Your task to perform on an android device: Clear the cart on amazon.com. Add duracell triple a to the cart on amazon.com, then select checkout. Image 0: 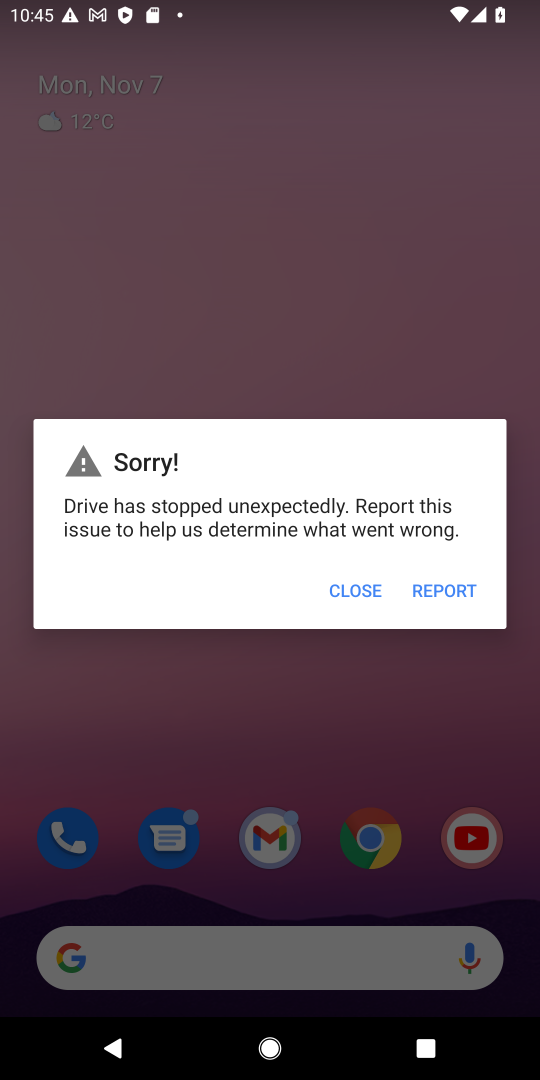
Step 0: click (350, 588)
Your task to perform on an android device: Clear the cart on amazon.com. Add duracell triple a to the cart on amazon.com, then select checkout. Image 1: 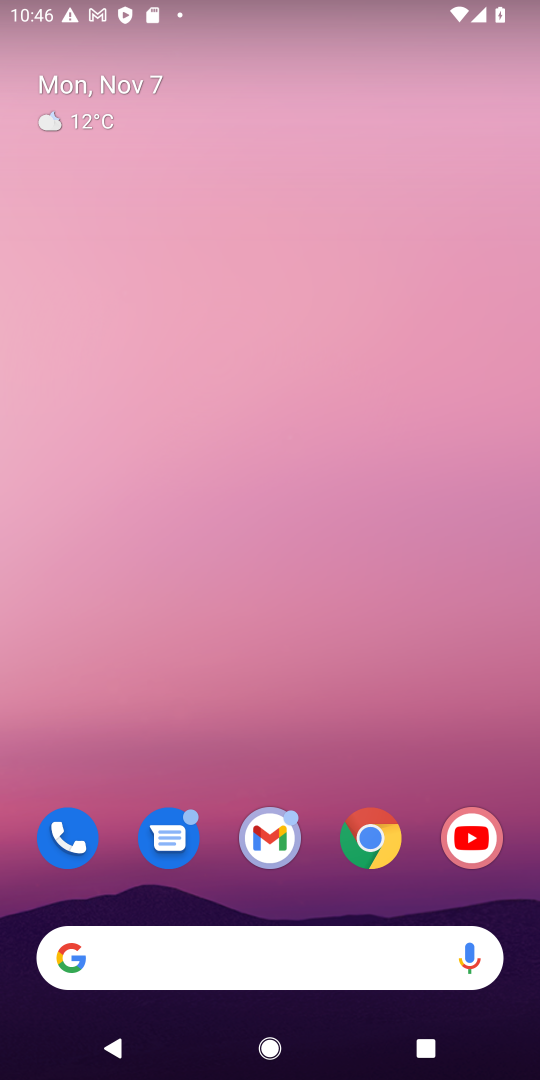
Step 1: drag from (306, 770) to (180, 15)
Your task to perform on an android device: Clear the cart on amazon.com. Add duracell triple a to the cart on amazon.com, then select checkout. Image 2: 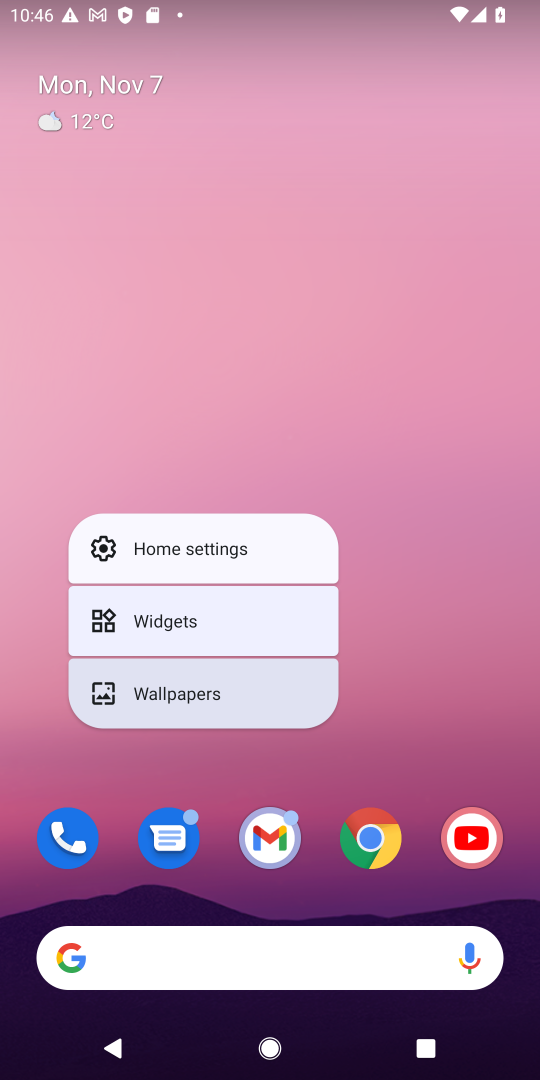
Step 2: click (371, 837)
Your task to perform on an android device: Clear the cart on amazon.com. Add duracell triple a to the cart on amazon.com, then select checkout. Image 3: 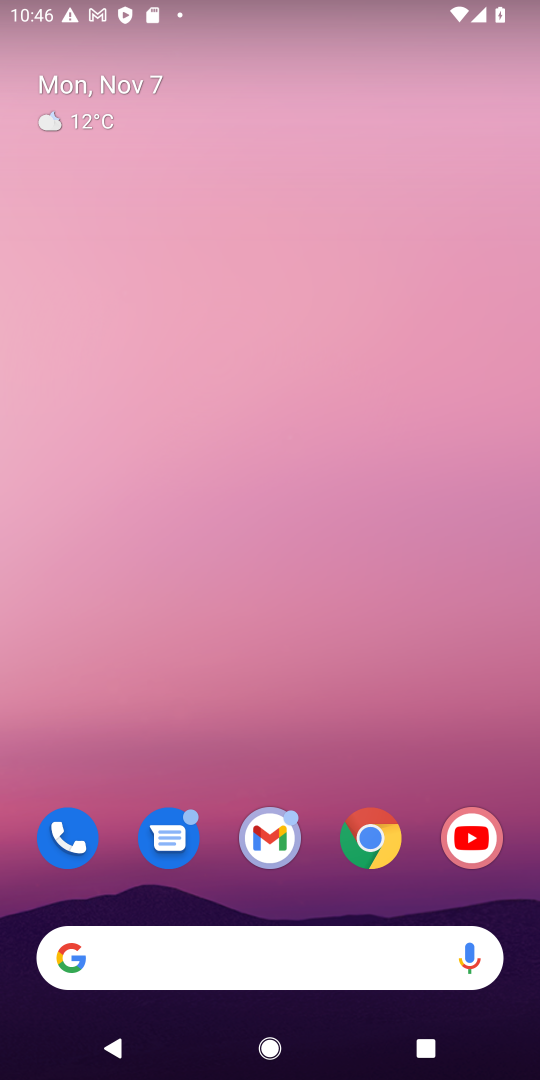
Step 3: click (370, 834)
Your task to perform on an android device: Clear the cart on amazon.com. Add duracell triple a to the cart on amazon.com, then select checkout. Image 4: 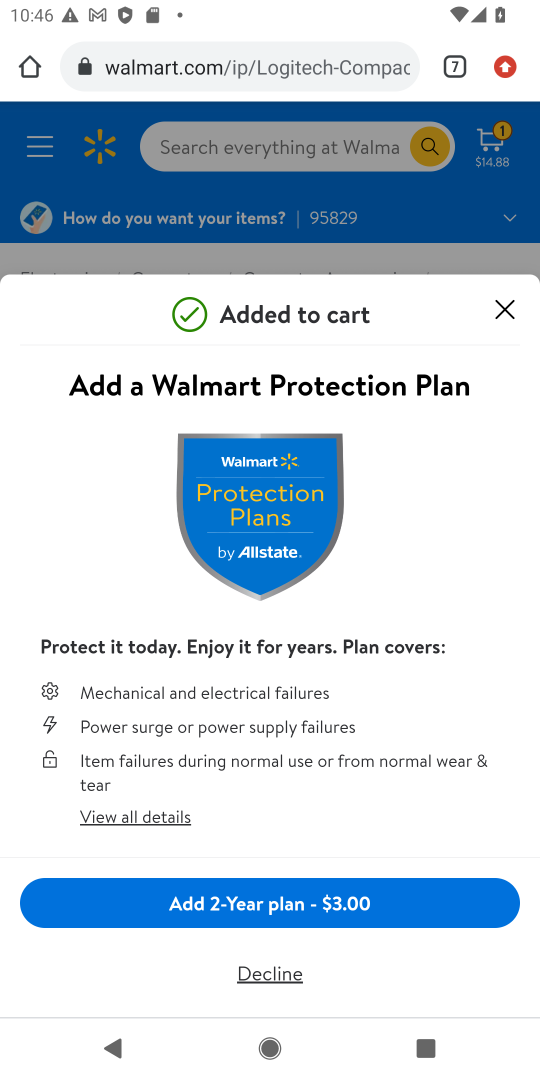
Step 4: click (456, 60)
Your task to perform on an android device: Clear the cart on amazon.com. Add duracell triple a to the cart on amazon.com, then select checkout. Image 5: 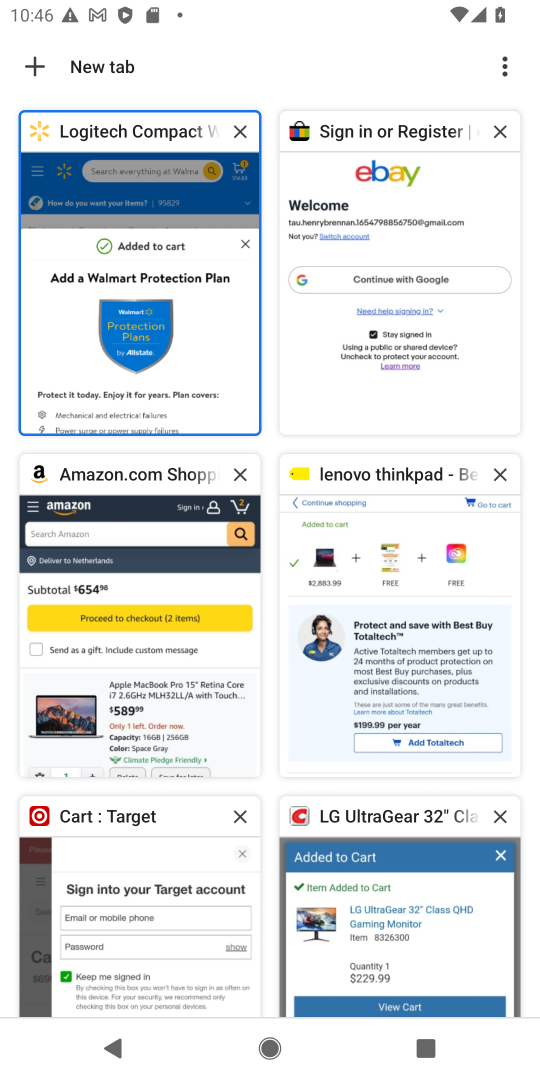
Step 5: click (190, 603)
Your task to perform on an android device: Clear the cart on amazon.com. Add duracell triple a to the cart on amazon.com, then select checkout. Image 6: 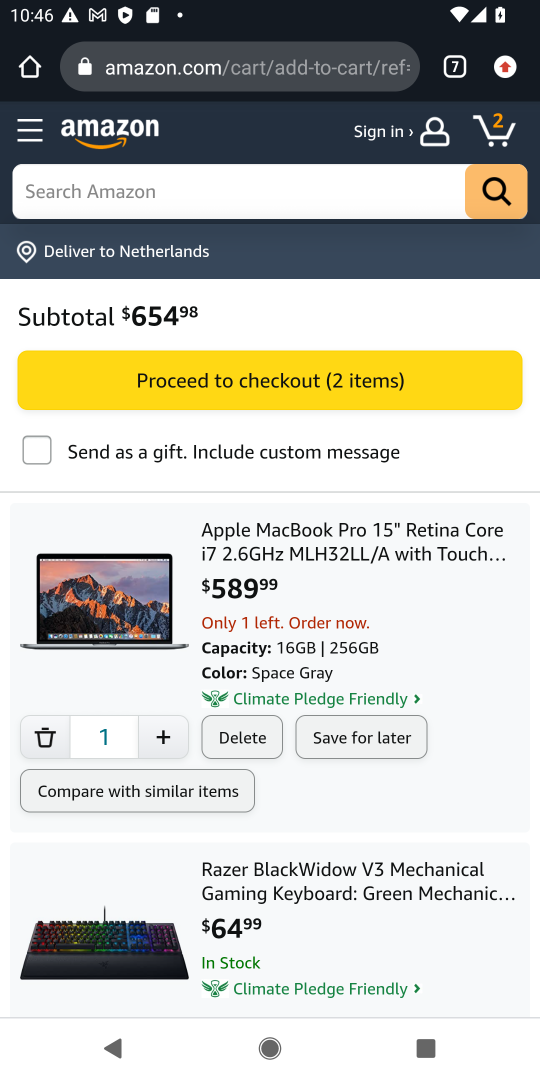
Step 6: click (221, 733)
Your task to perform on an android device: Clear the cart on amazon.com. Add duracell triple a to the cart on amazon.com, then select checkout. Image 7: 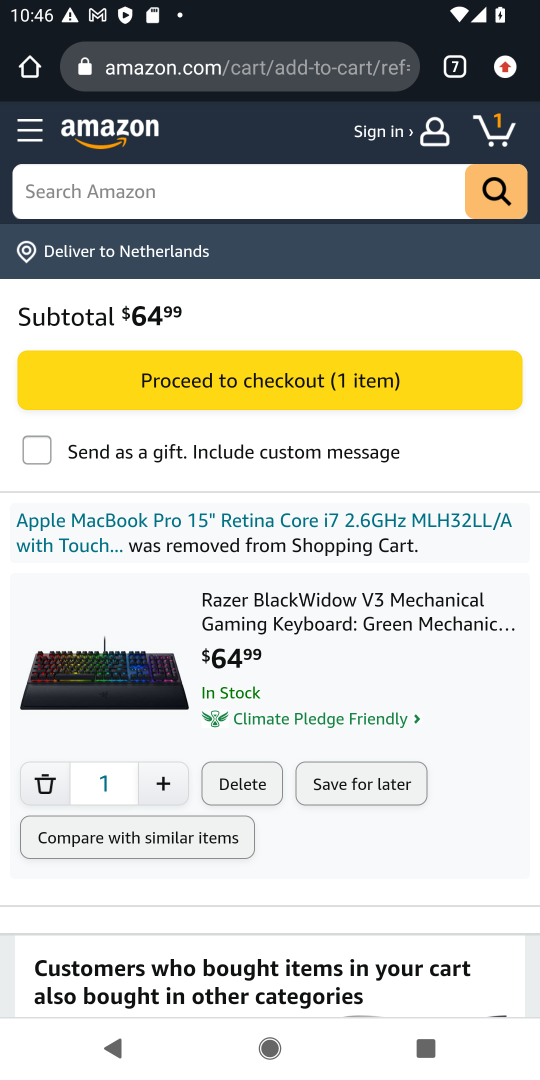
Step 7: click (239, 777)
Your task to perform on an android device: Clear the cart on amazon.com. Add duracell triple a to the cart on amazon.com, then select checkout. Image 8: 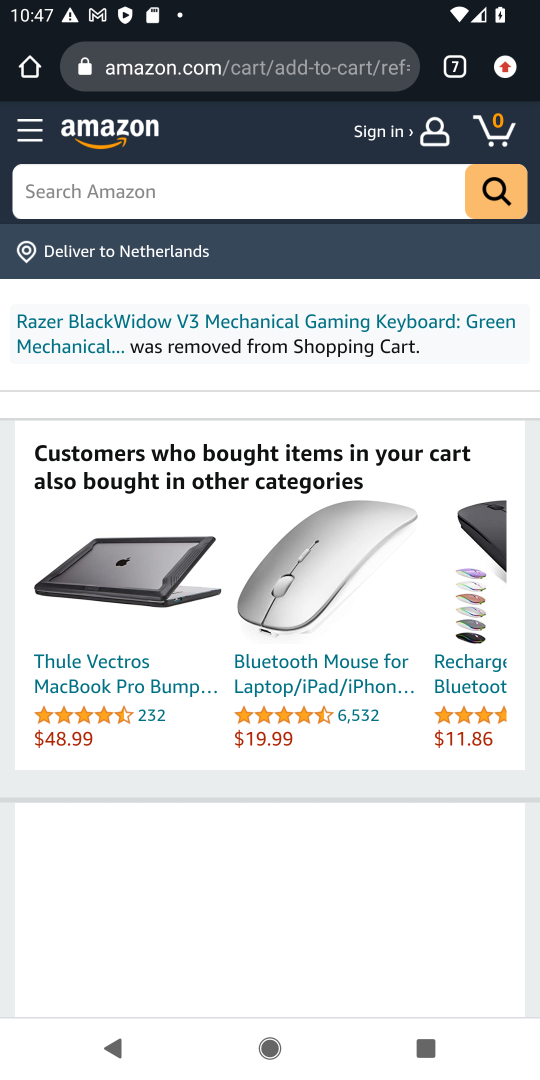
Step 8: type "duracell triple a"
Your task to perform on an android device: Clear the cart on amazon.com. Add duracell triple a to the cart on amazon.com, then select checkout. Image 9: 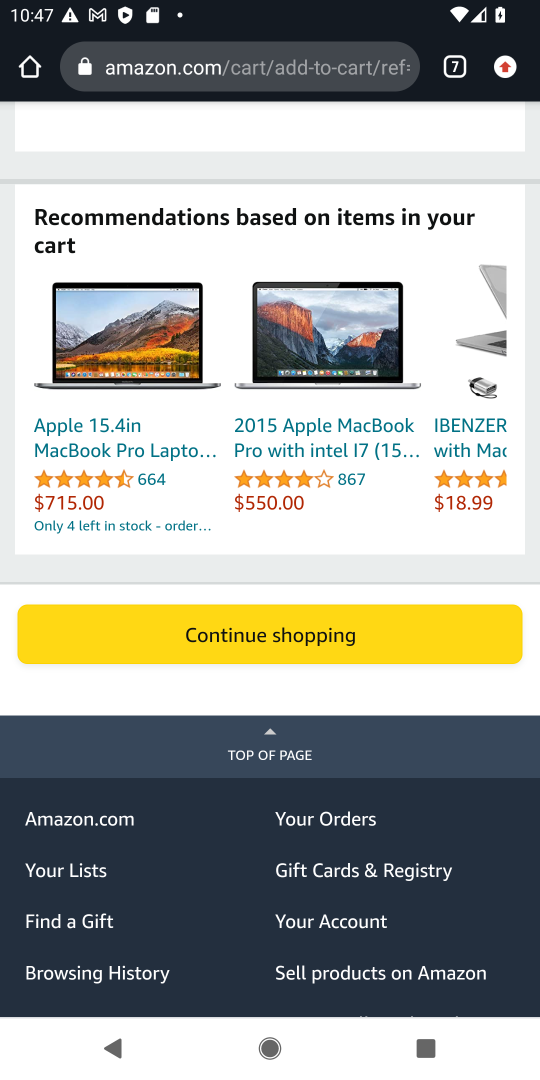
Step 9: click (280, 634)
Your task to perform on an android device: Clear the cart on amazon.com. Add duracell triple a to the cart on amazon.com, then select checkout. Image 10: 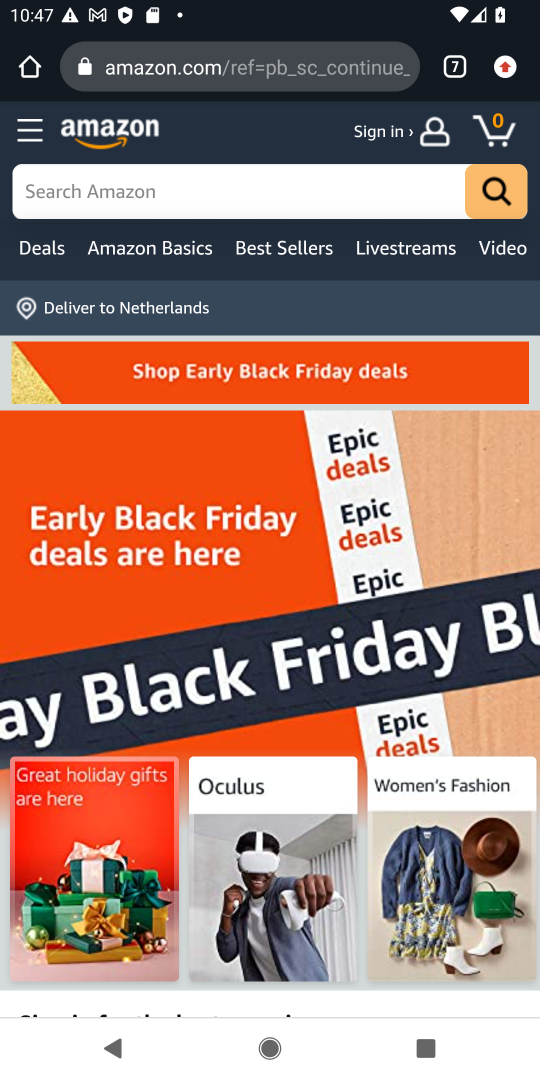
Step 10: click (144, 187)
Your task to perform on an android device: Clear the cart on amazon.com. Add duracell triple a to the cart on amazon.com, then select checkout. Image 11: 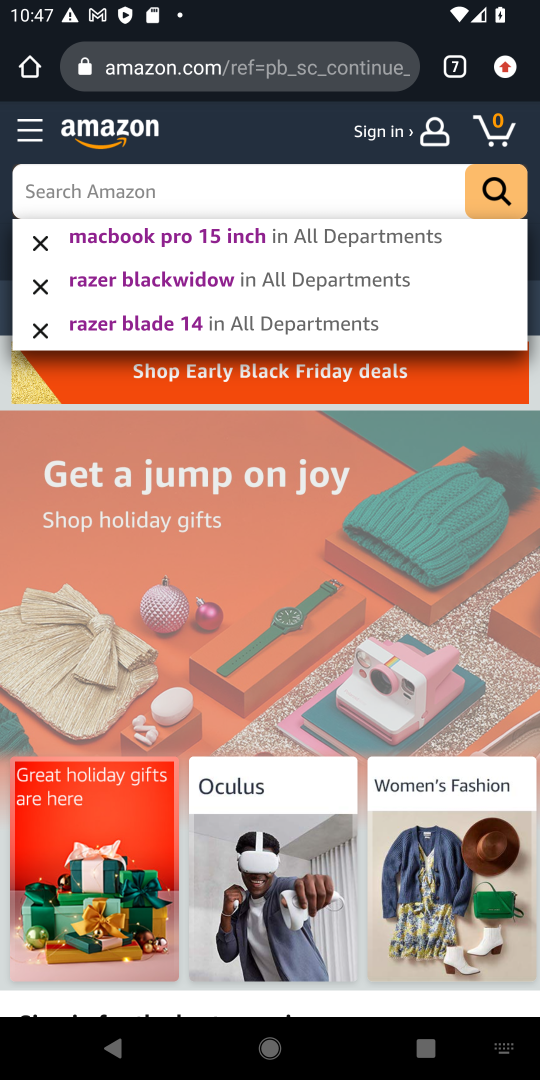
Step 11: type "duracell triple a"
Your task to perform on an android device: Clear the cart on amazon.com. Add duracell triple a to the cart on amazon.com, then select checkout. Image 12: 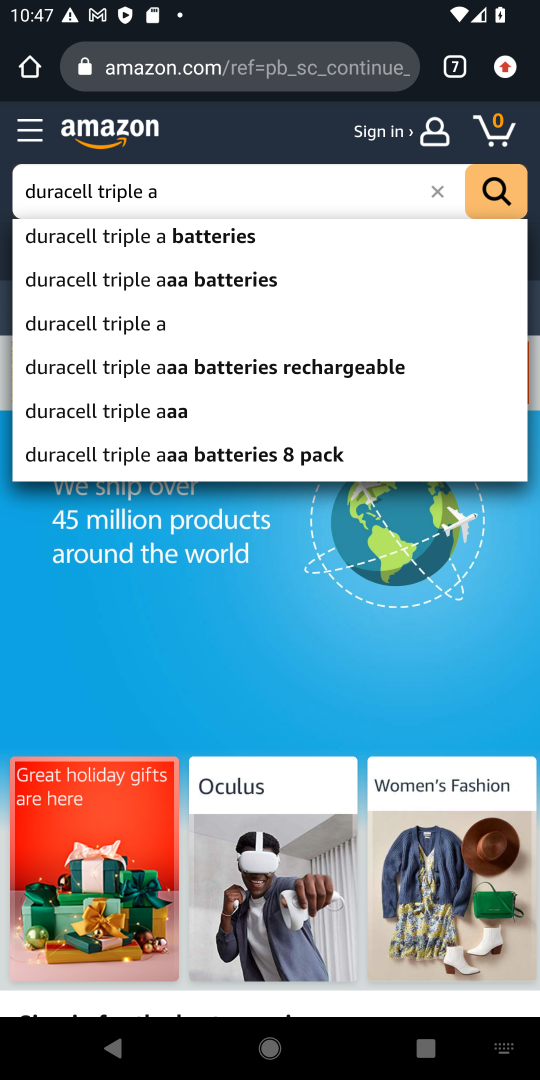
Step 12: click (209, 232)
Your task to perform on an android device: Clear the cart on amazon.com. Add duracell triple a to the cart on amazon.com, then select checkout. Image 13: 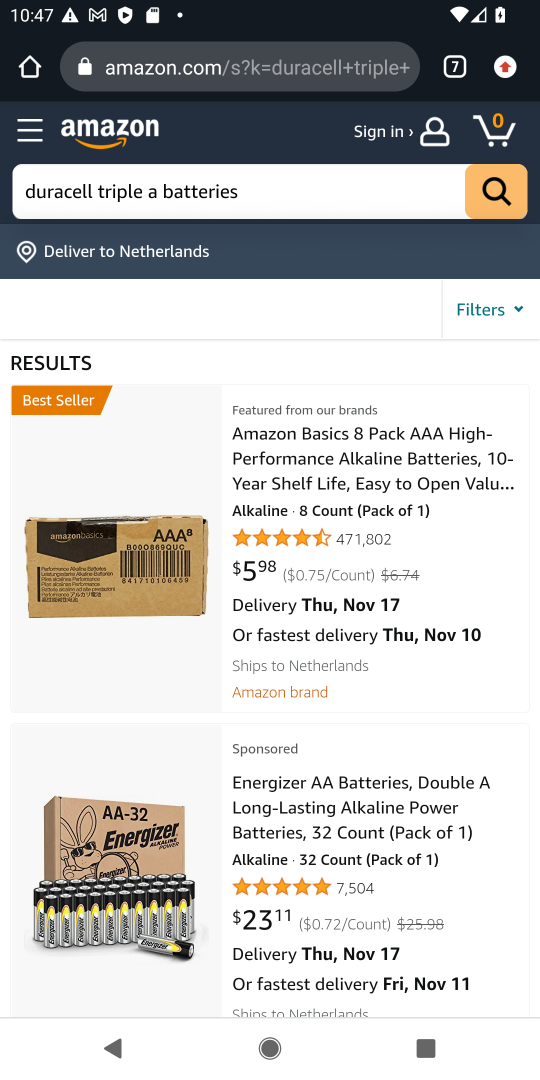
Step 13: drag from (361, 904) to (466, 286)
Your task to perform on an android device: Clear the cart on amazon.com. Add duracell triple a to the cart on amazon.com, then select checkout. Image 14: 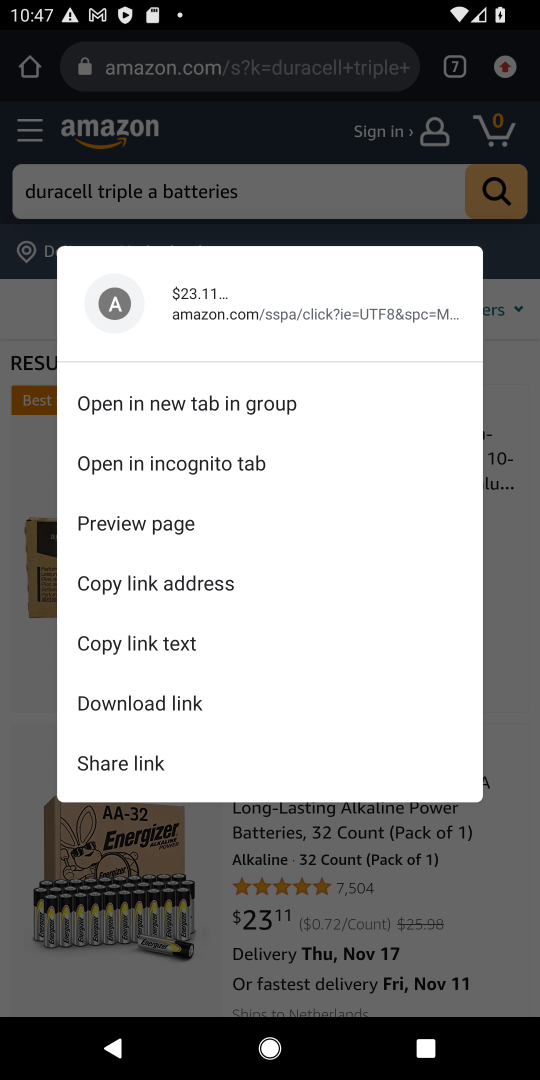
Step 14: click (300, 906)
Your task to perform on an android device: Clear the cart on amazon.com. Add duracell triple a to the cart on amazon.com, then select checkout. Image 15: 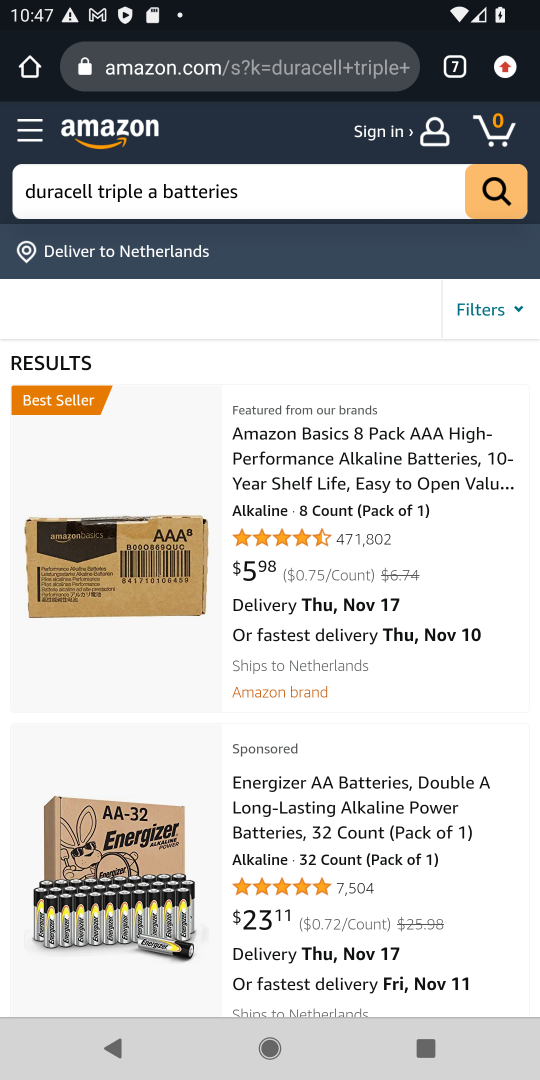
Step 15: drag from (300, 906) to (388, 267)
Your task to perform on an android device: Clear the cart on amazon.com. Add duracell triple a to the cart on amazon.com, then select checkout. Image 16: 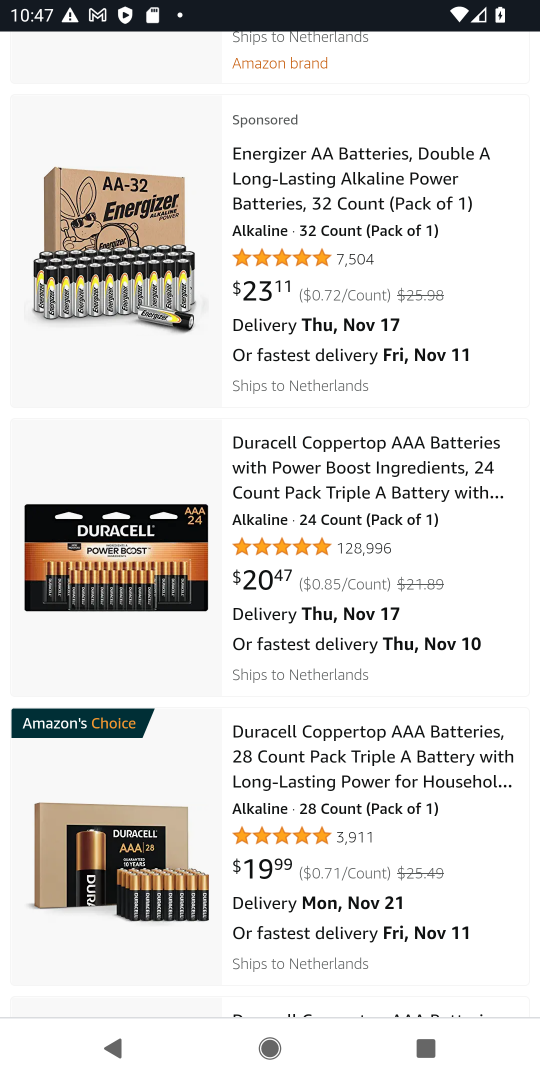
Step 16: click (360, 786)
Your task to perform on an android device: Clear the cart on amazon.com. Add duracell triple a to the cart on amazon.com, then select checkout. Image 17: 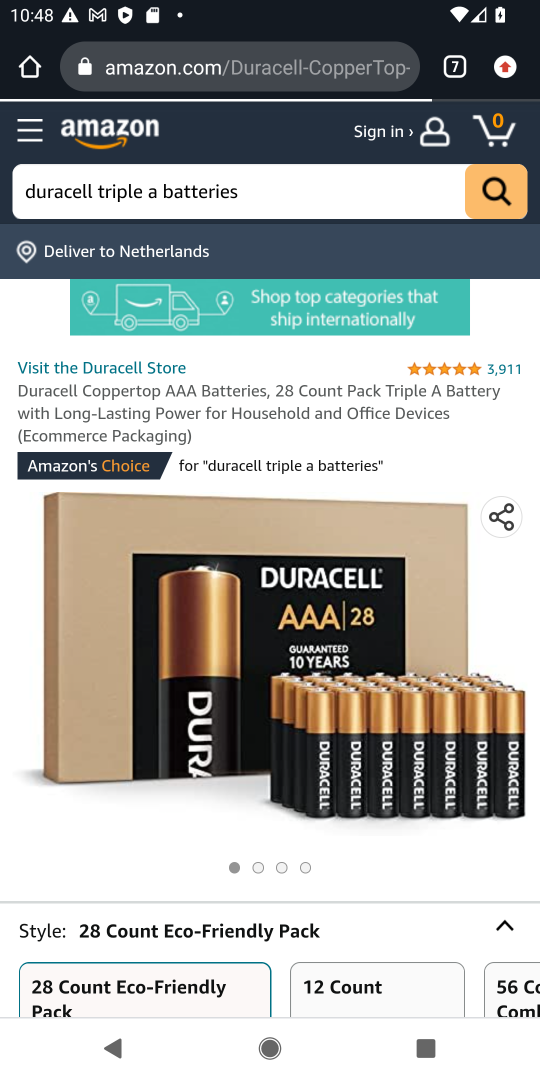
Step 17: drag from (363, 921) to (408, 362)
Your task to perform on an android device: Clear the cart on amazon.com. Add duracell triple a to the cart on amazon.com, then select checkout. Image 18: 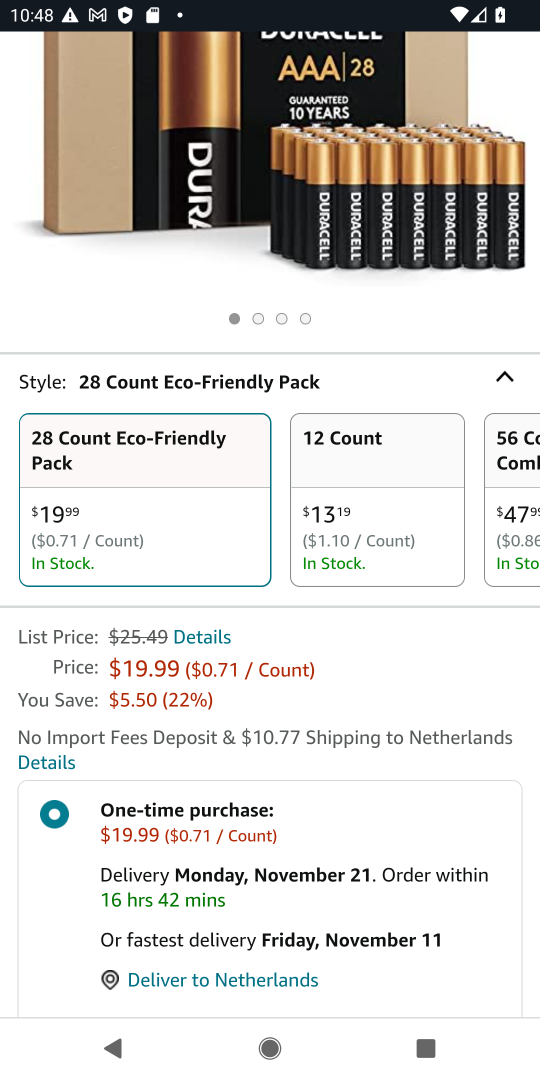
Step 18: drag from (261, 721) to (276, 89)
Your task to perform on an android device: Clear the cart on amazon.com. Add duracell triple a to the cart on amazon.com, then select checkout. Image 19: 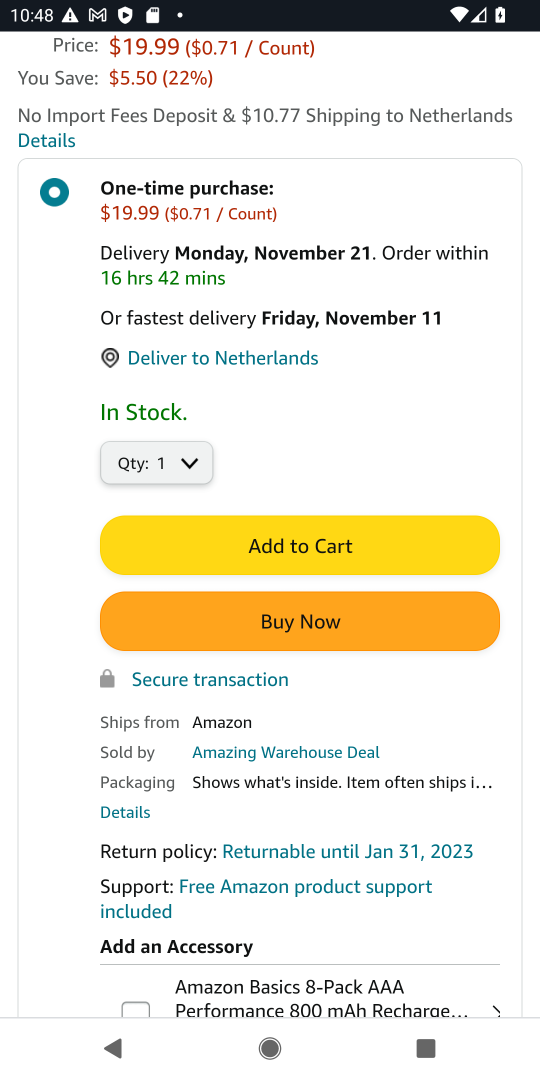
Step 19: click (278, 559)
Your task to perform on an android device: Clear the cart on amazon.com. Add duracell triple a to the cart on amazon.com, then select checkout. Image 20: 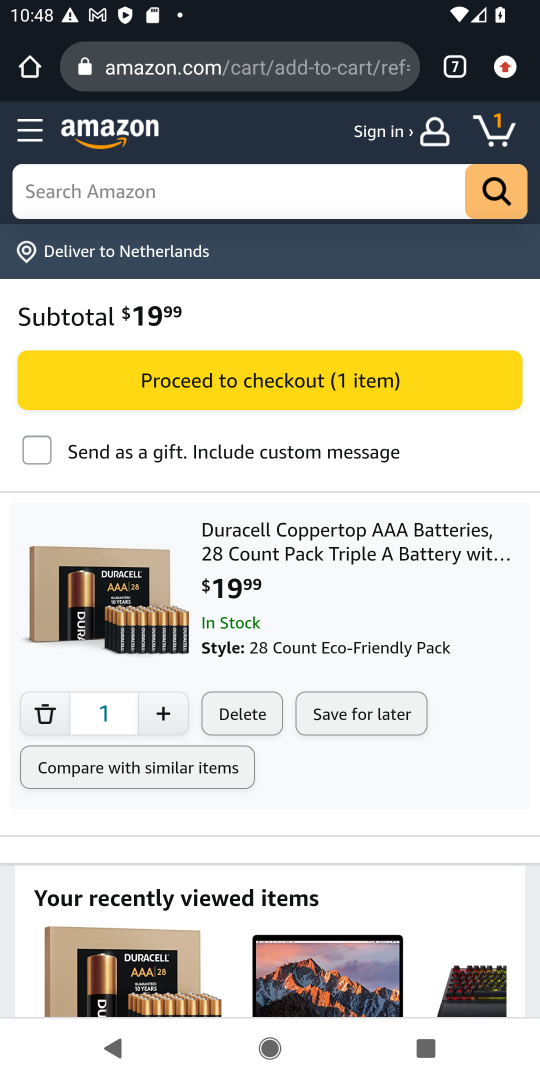
Step 20: click (330, 396)
Your task to perform on an android device: Clear the cart on amazon.com. Add duracell triple a to the cart on amazon.com, then select checkout. Image 21: 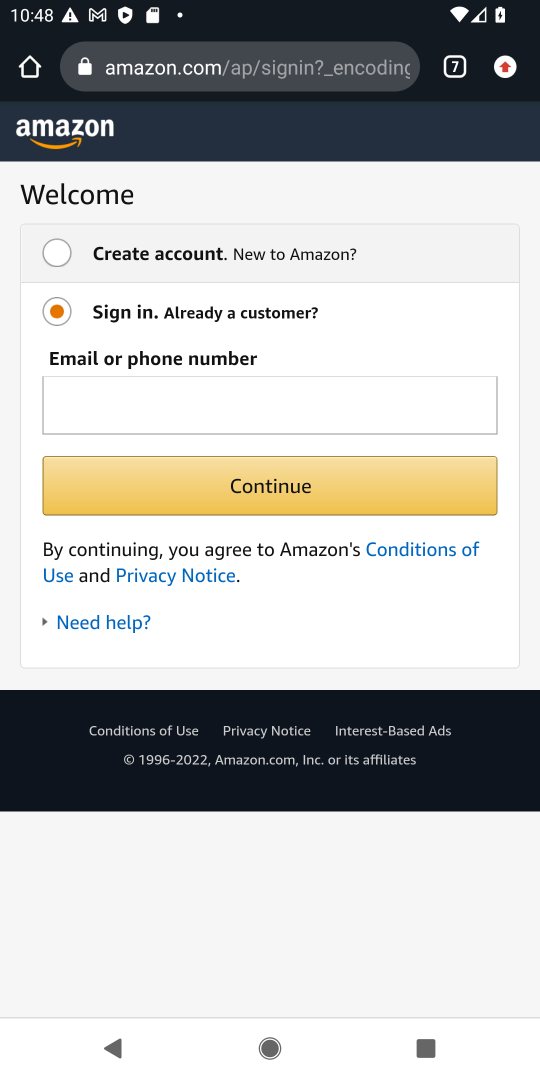
Step 21: task complete